Your task to perform on an android device: install app "Skype" Image 0: 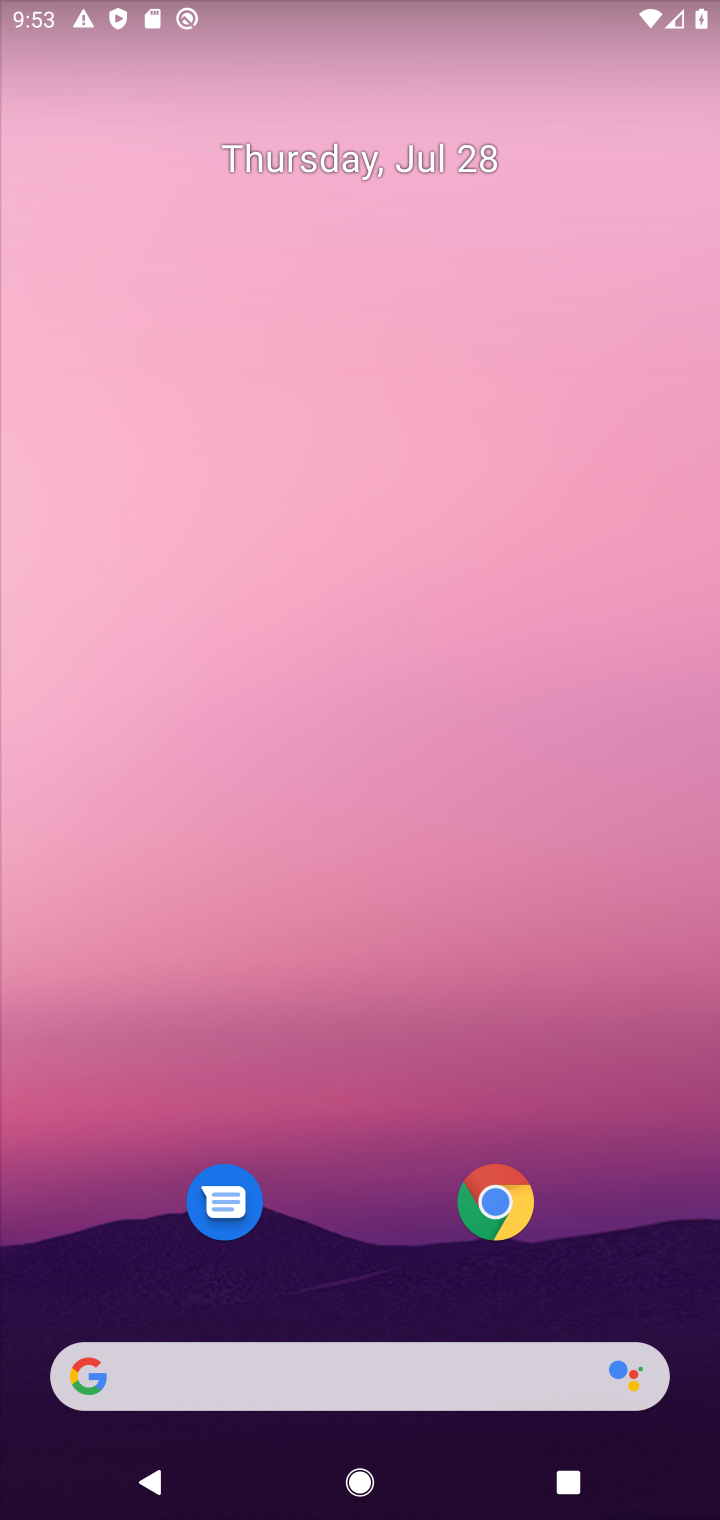
Step 0: drag from (289, 1327) to (258, 301)
Your task to perform on an android device: install app "Skype" Image 1: 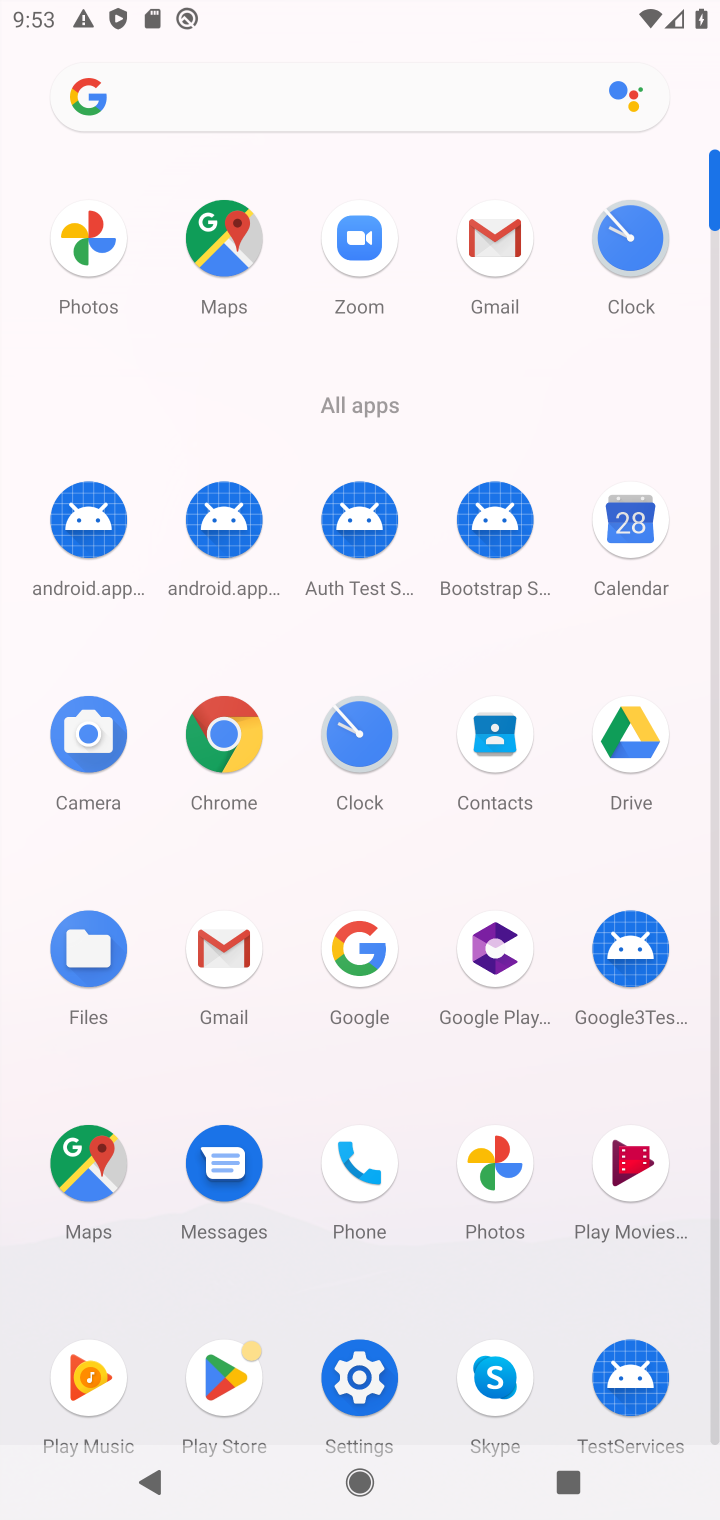
Step 1: click (367, 104)
Your task to perform on an android device: install app "Skype" Image 2: 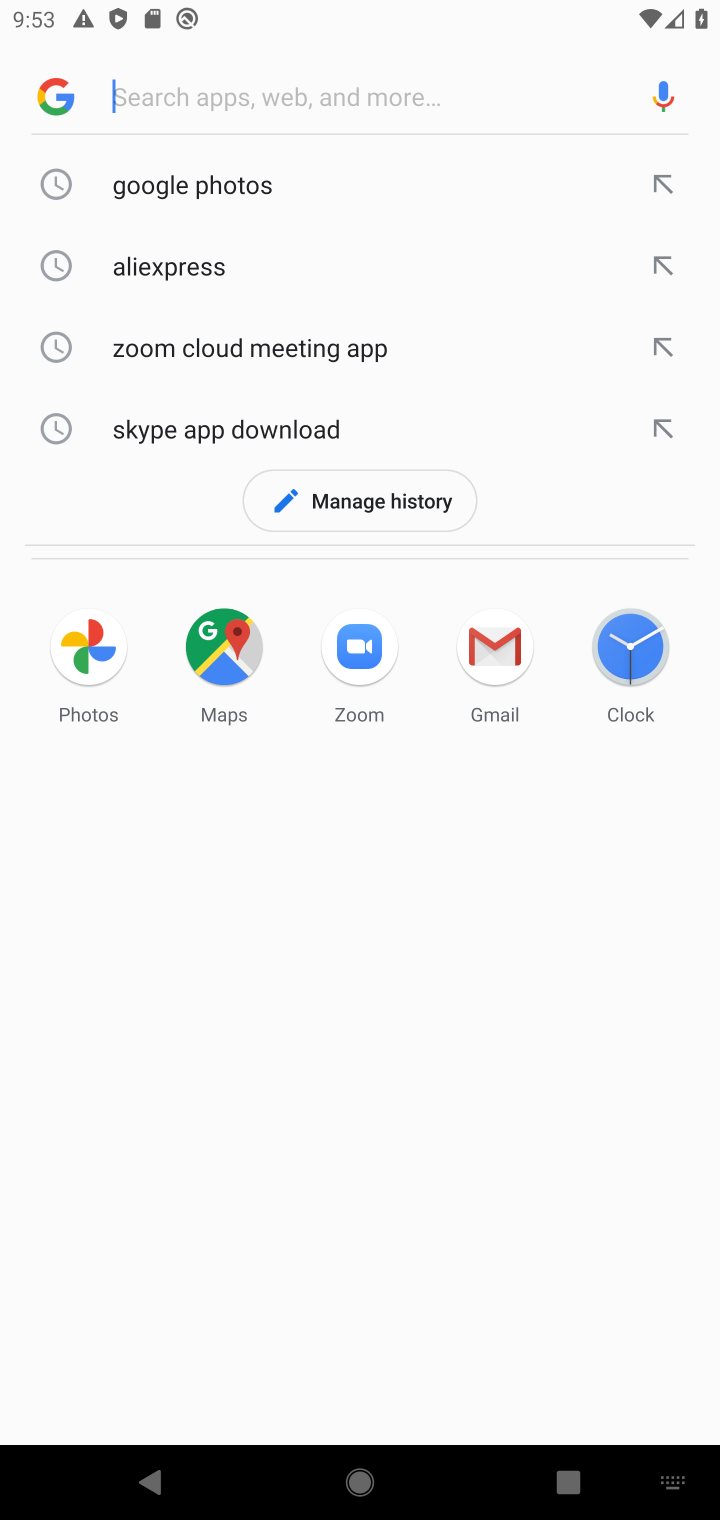
Step 2: type "skype"
Your task to perform on an android device: install app "Skype" Image 3: 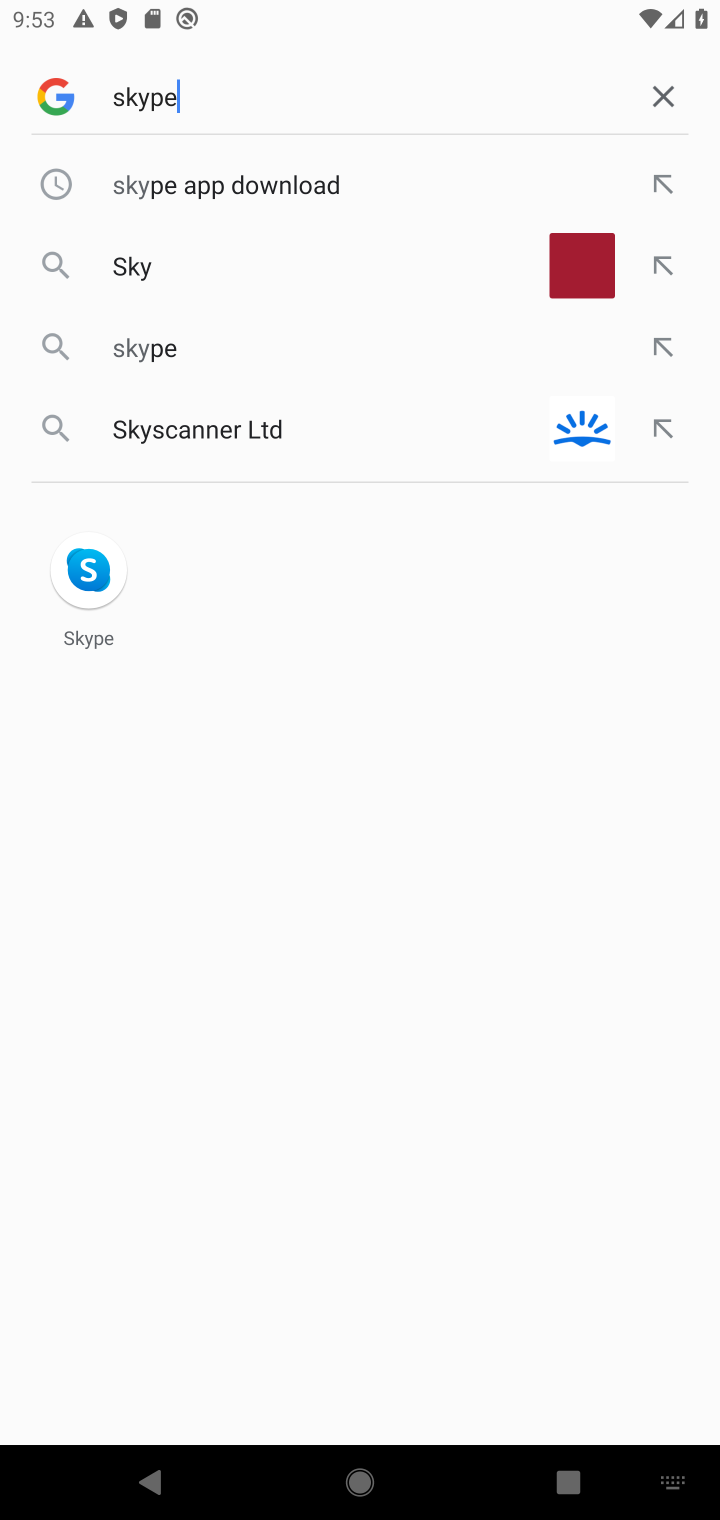
Step 3: click (287, 188)
Your task to perform on an android device: install app "Skype" Image 4: 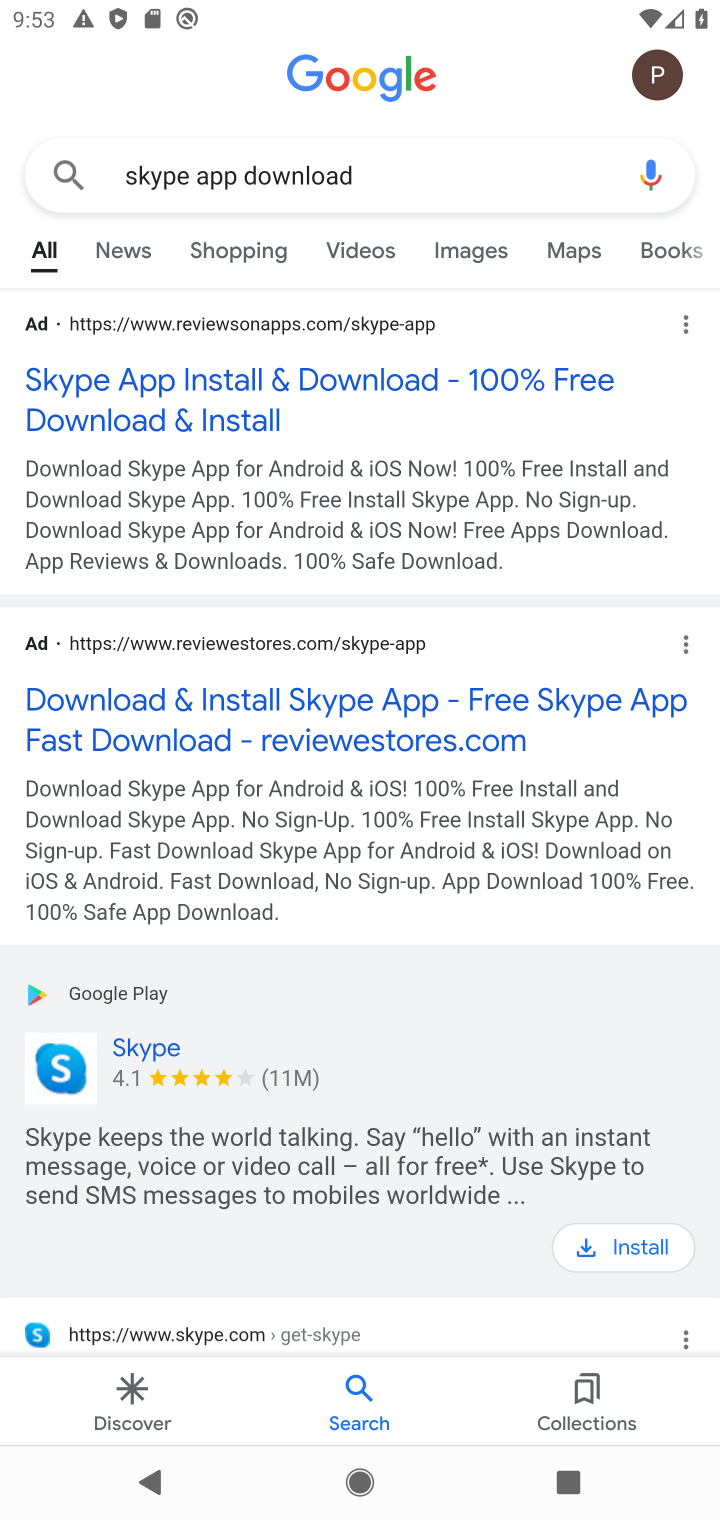
Step 4: click (599, 1246)
Your task to perform on an android device: install app "Skype" Image 5: 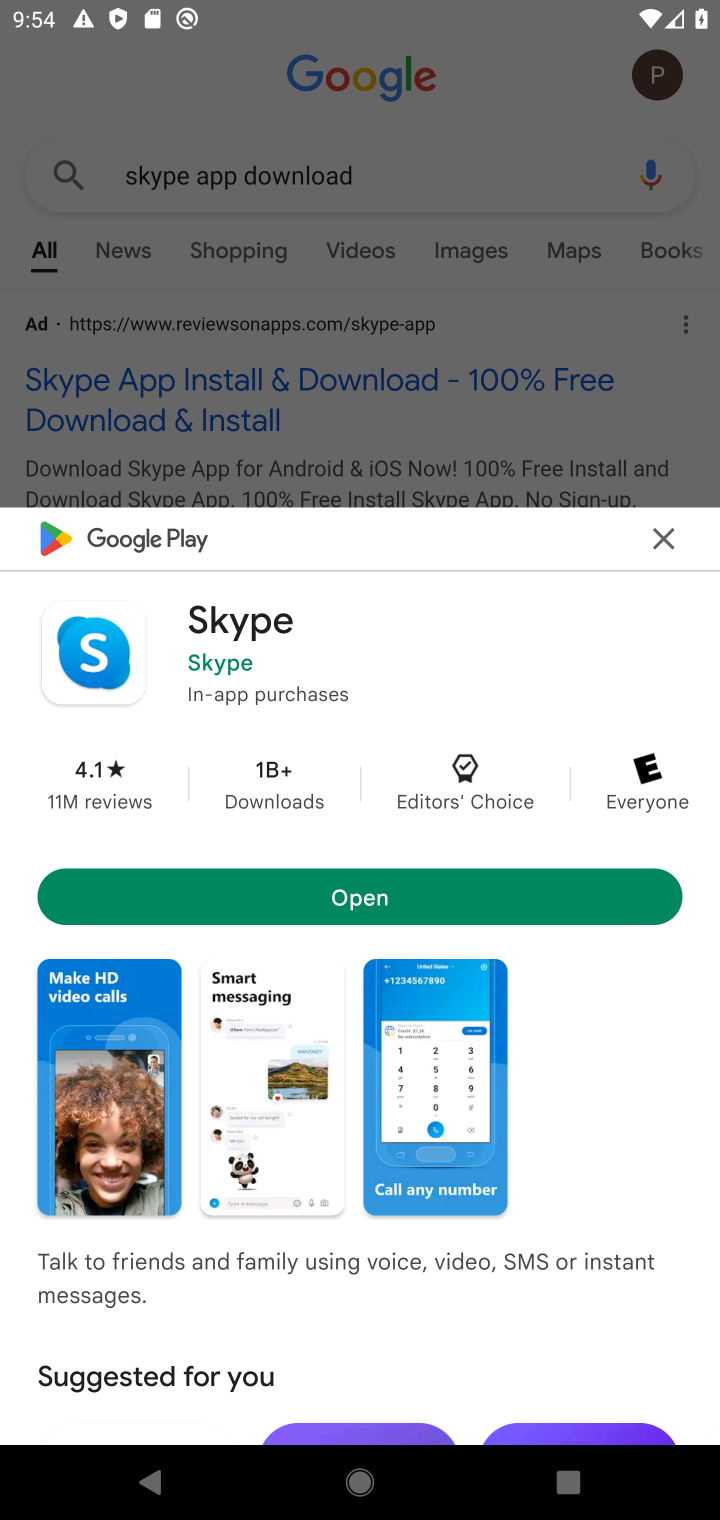
Step 5: click (469, 914)
Your task to perform on an android device: install app "Skype" Image 6: 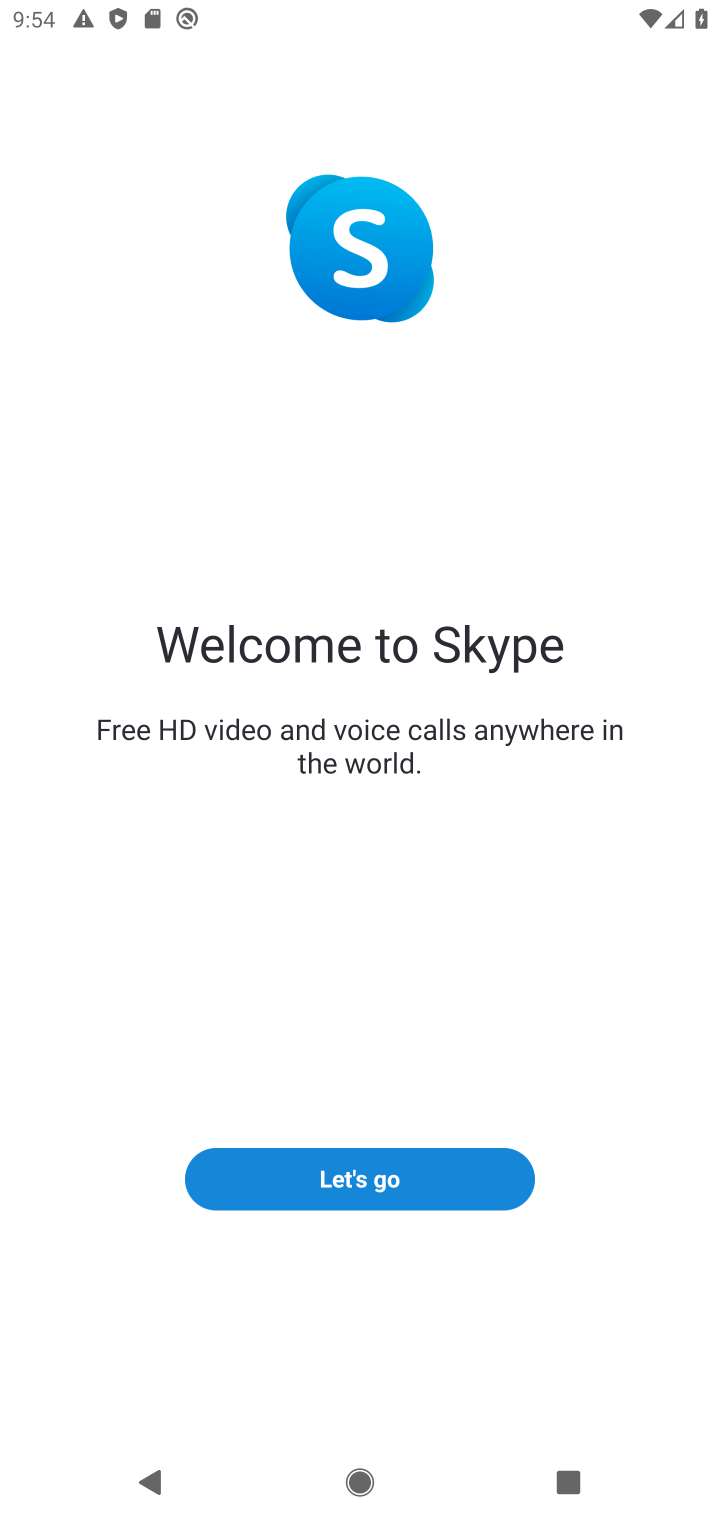
Step 6: click (349, 1198)
Your task to perform on an android device: install app "Skype" Image 7: 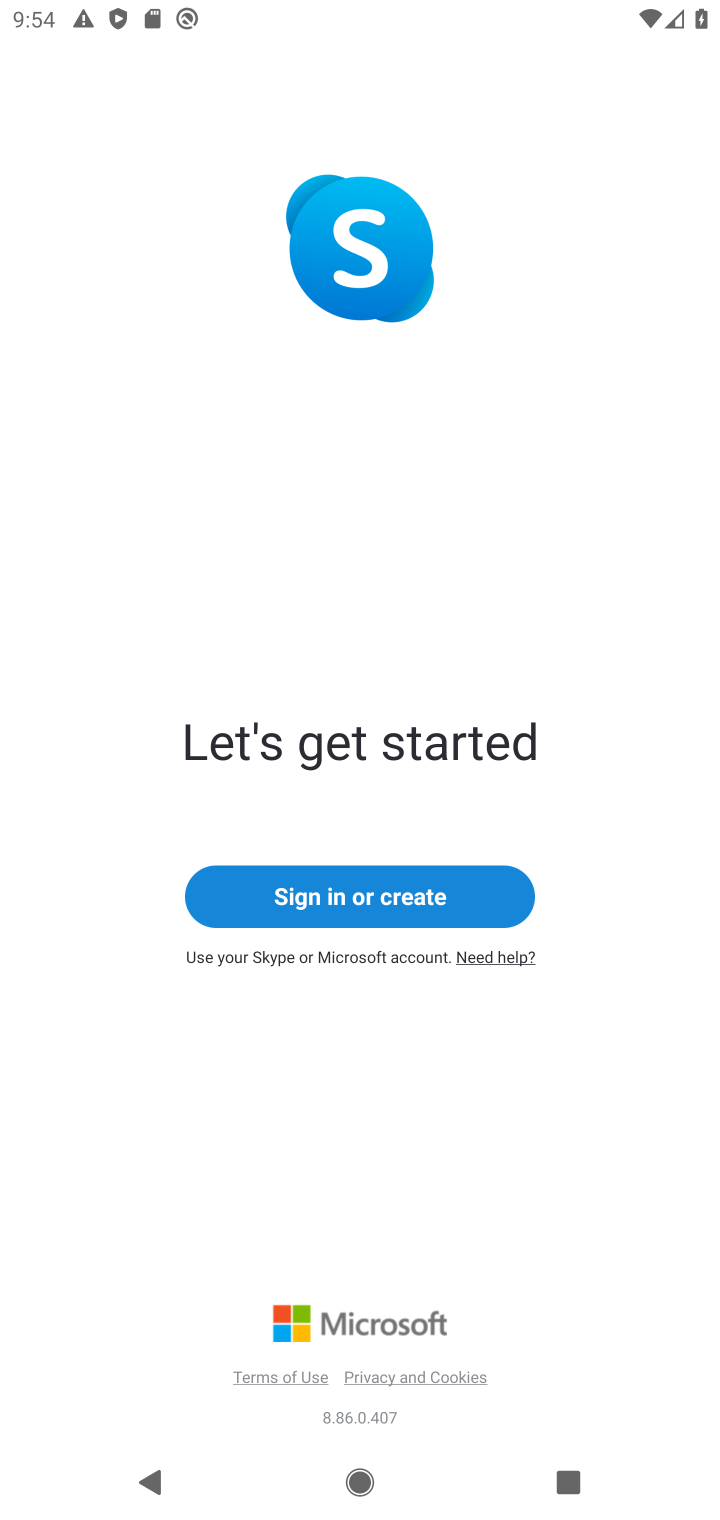
Step 7: click (409, 899)
Your task to perform on an android device: install app "Skype" Image 8: 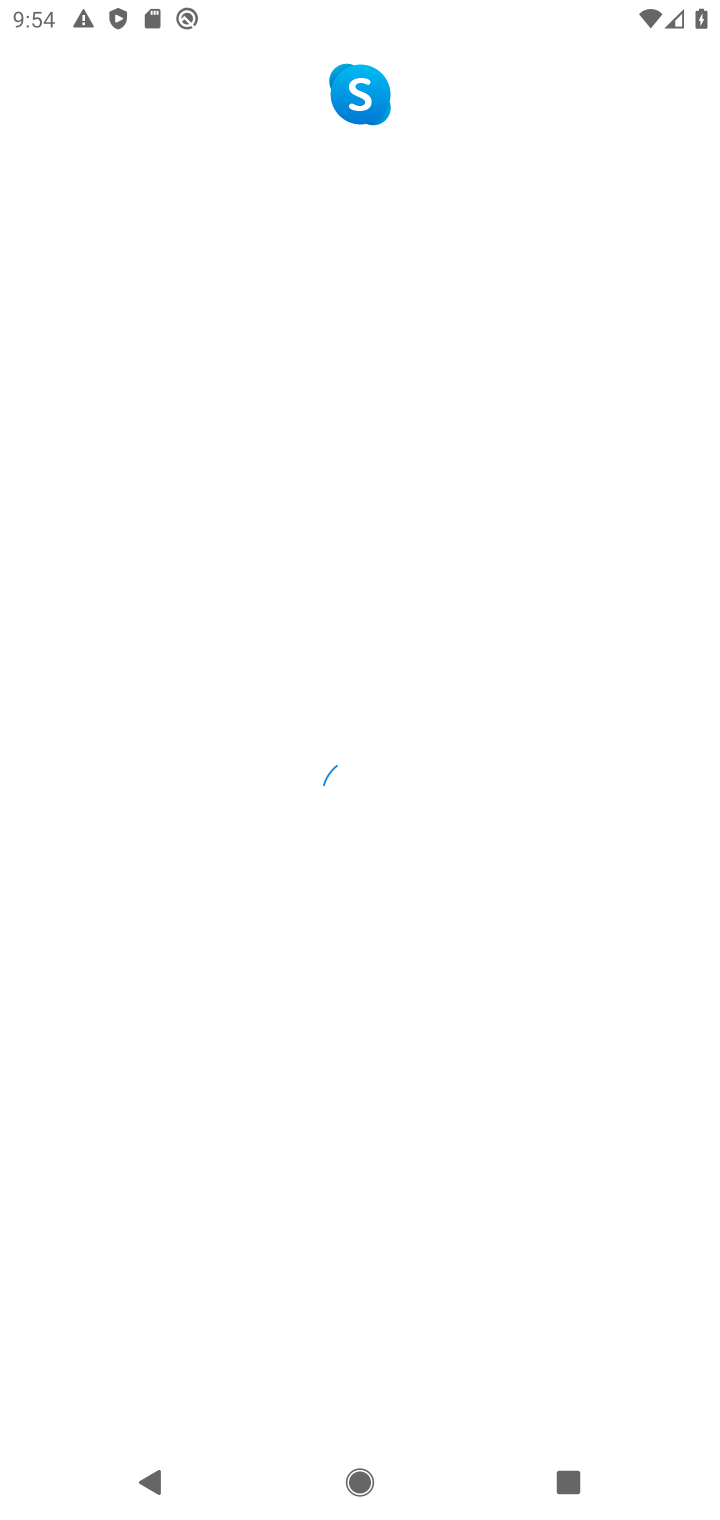
Step 8: task complete